Your task to perform on an android device: turn on the 12-hour format for clock Image 0: 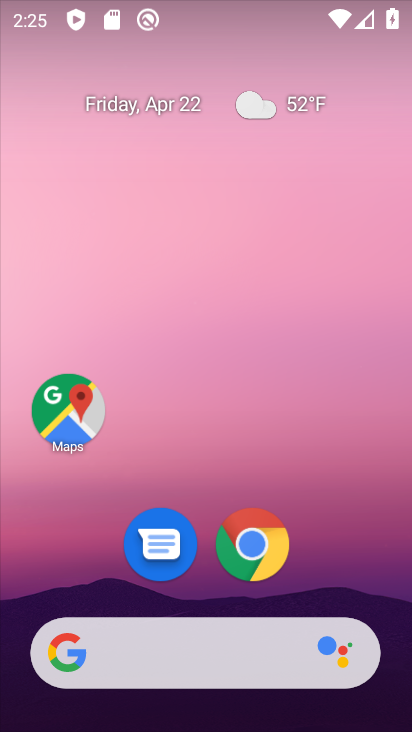
Step 0: drag from (180, 621) to (219, 12)
Your task to perform on an android device: turn on the 12-hour format for clock Image 1: 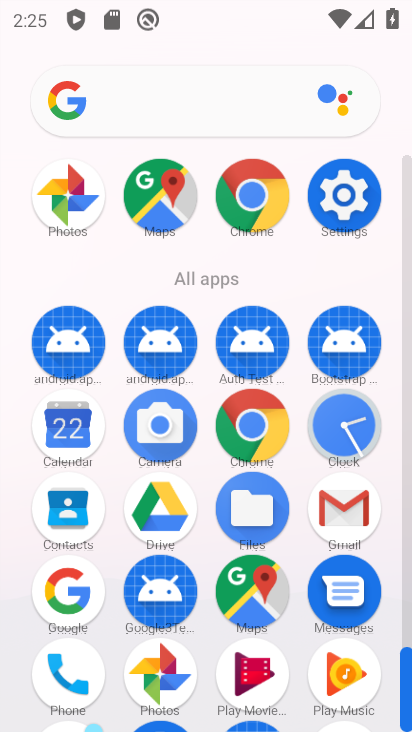
Step 1: click (351, 433)
Your task to perform on an android device: turn on the 12-hour format for clock Image 2: 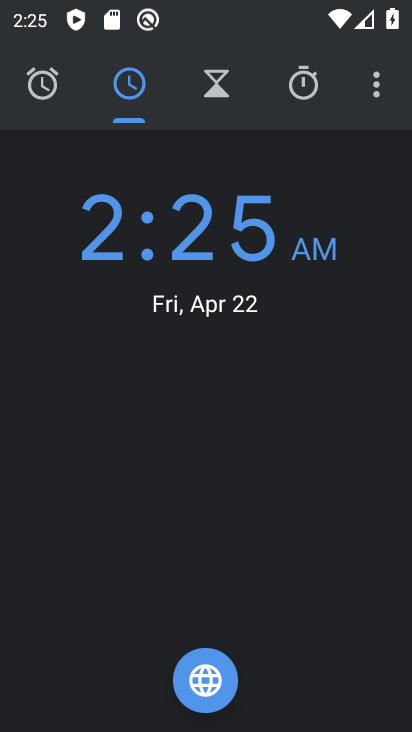
Step 2: click (368, 90)
Your task to perform on an android device: turn on the 12-hour format for clock Image 3: 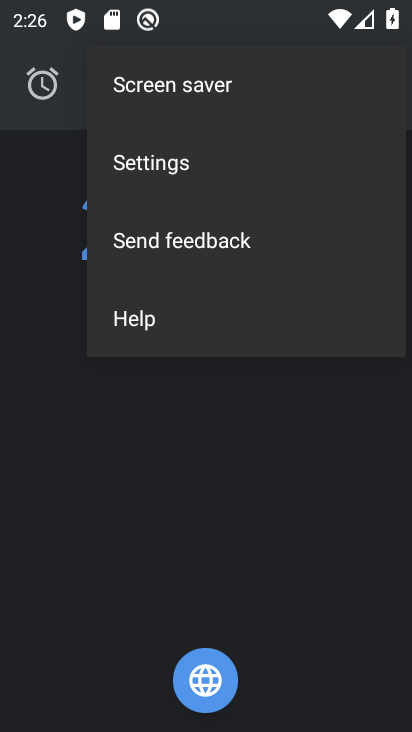
Step 3: click (184, 171)
Your task to perform on an android device: turn on the 12-hour format for clock Image 4: 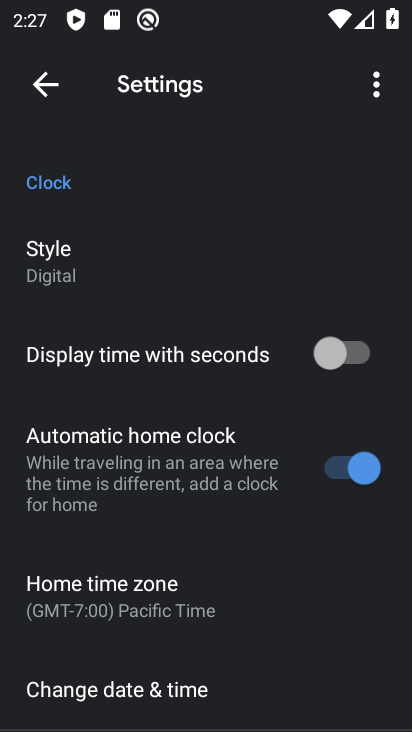
Step 4: drag from (172, 568) to (114, 141)
Your task to perform on an android device: turn on the 12-hour format for clock Image 5: 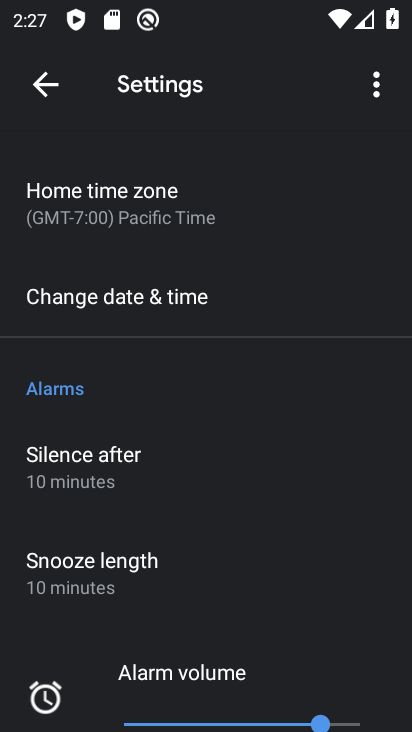
Step 5: click (86, 310)
Your task to perform on an android device: turn on the 12-hour format for clock Image 6: 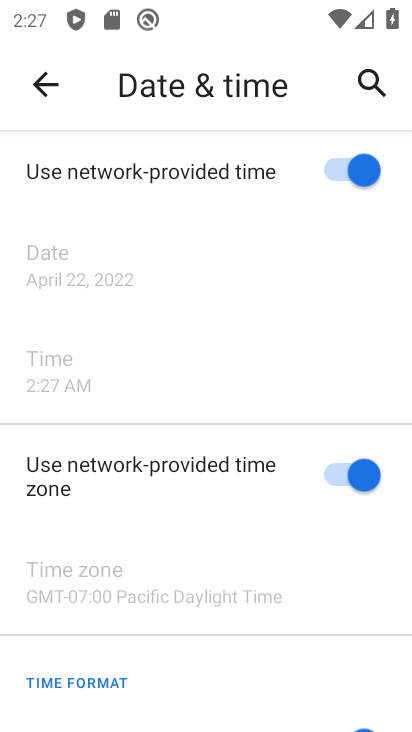
Step 6: task complete